Your task to perform on an android device: Open the web browser Image 0: 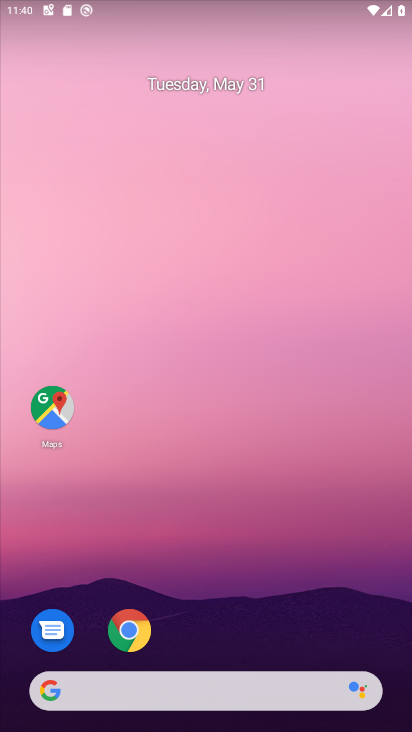
Step 0: click (135, 622)
Your task to perform on an android device: Open the web browser Image 1: 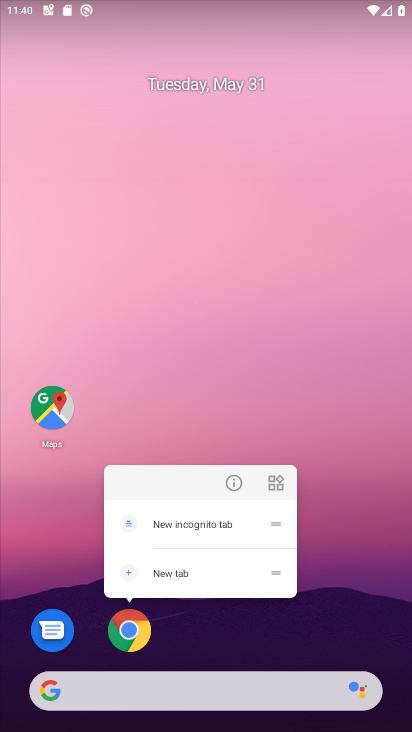
Step 1: click (128, 626)
Your task to perform on an android device: Open the web browser Image 2: 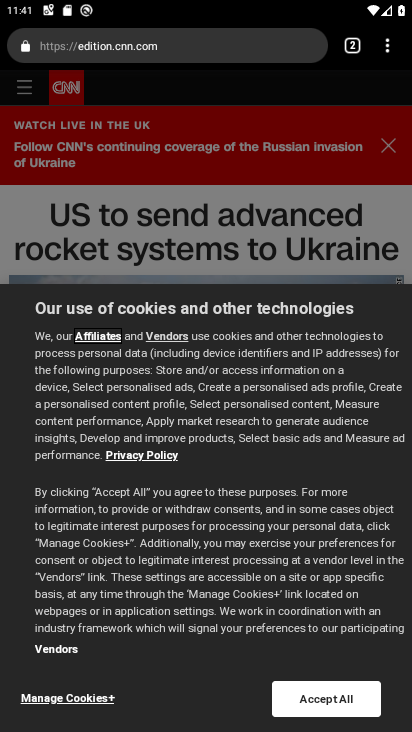
Step 2: task complete